Your task to perform on an android device: Open Chrome and go to the settings page Image 0: 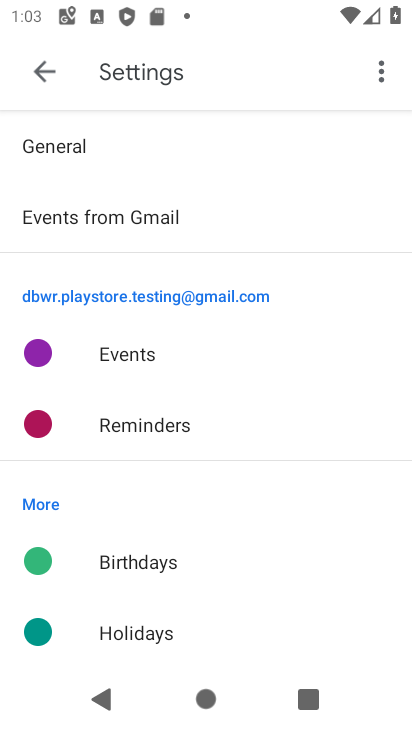
Step 0: press home button
Your task to perform on an android device: Open Chrome and go to the settings page Image 1: 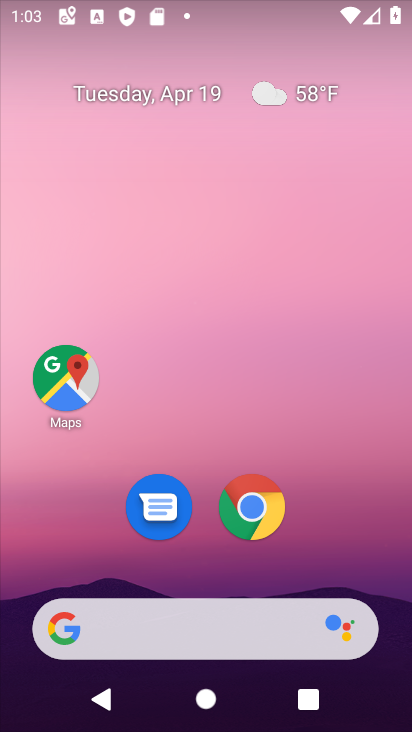
Step 1: click (262, 512)
Your task to perform on an android device: Open Chrome and go to the settings page Image 2: 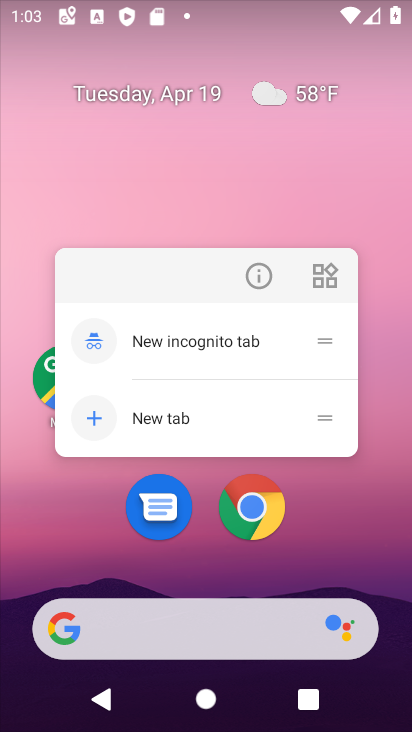
Step 2: click (246, 515)
Your task to perform on an android device: Open Chrome and go to the settings page Image 3: 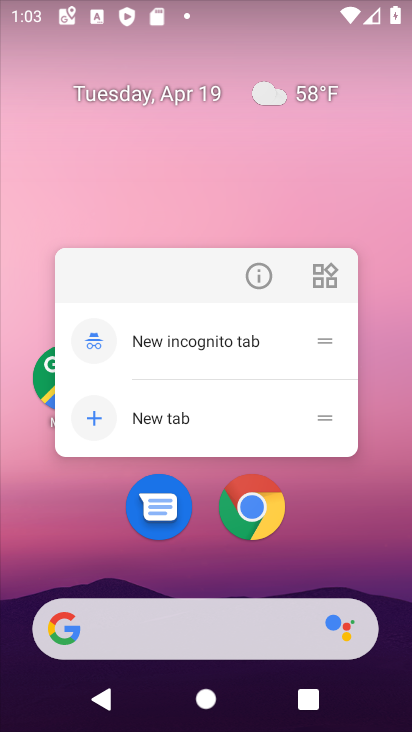
Step 3: click (250, 500)
Your task to perform on an android device: Open Chrome and go to the settings page Image 4: 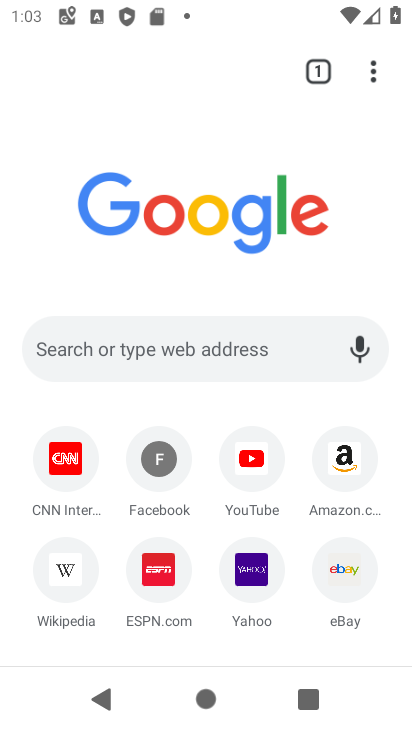
Step 4: click (366, 69)
Your task to perform on an android device: Open Chrome and go to the settings page Image 5: 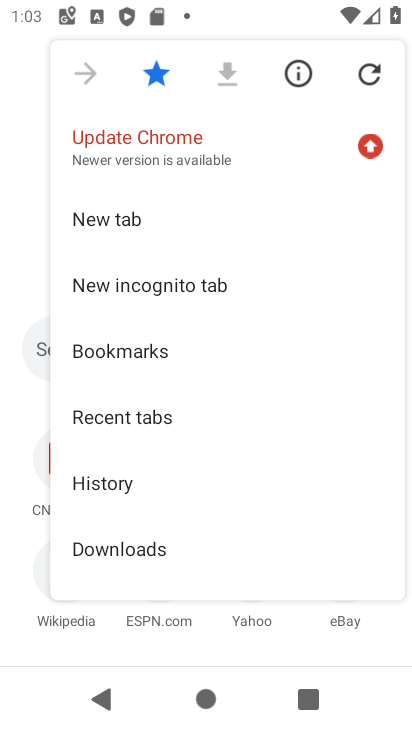
Step 5: drag from (183, 502) to (176, 167)
Your task to perform on an android device: Open Chrome and go to the settings page Image 6: 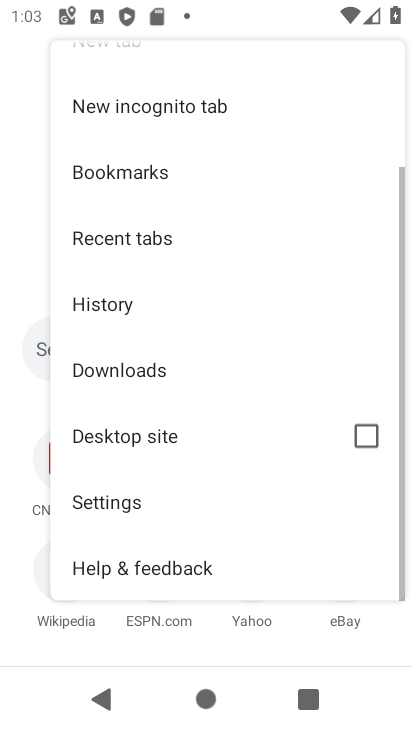
Step 6: click (179, 511)
Your task to perform on an android device: Open Chrome and go to the settings page Image 7: 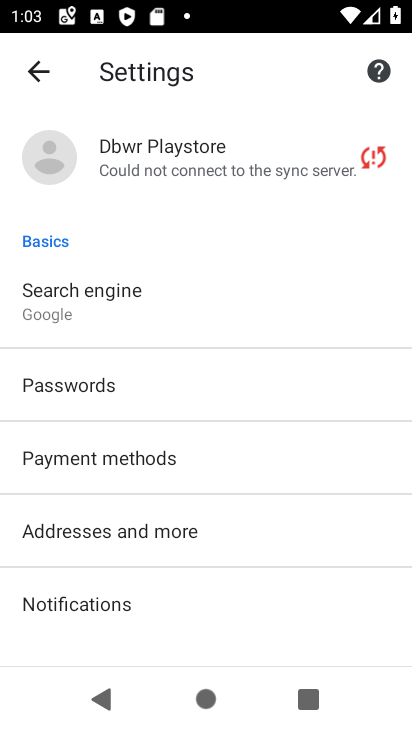
Step 7: task complete